Your task to perform on an android device: open chrome and create a bookmark for the current page Image 0: 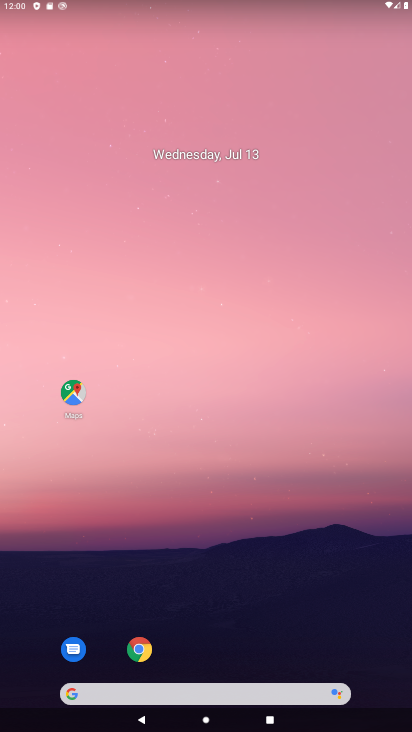
Step 0: click (134, 652)
Your task to perform on an android device: open chrome and create a bookmark for the current page Image 1: 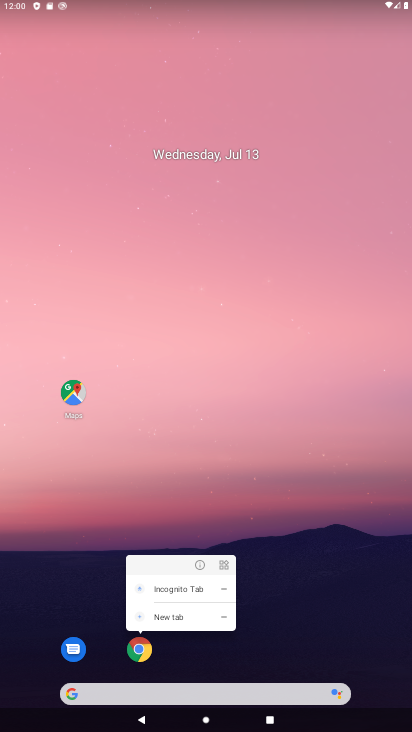
Step 1: click (135, 651)
Your task to perform on an android device: open chrome and create a bookmark for the current page Image 2: 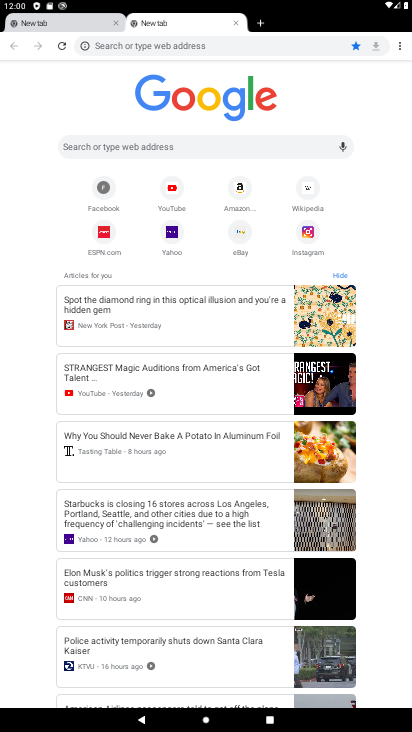
Step 2: task complete